Your task to perform on an android device: toggle priority inbox in the gmail app Image 0: 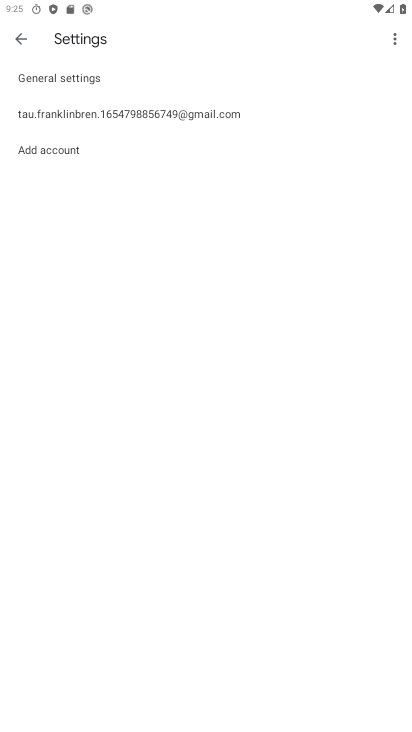
Step 0: press home button
Your task to perform on an android device: toggle priority inbox in the gmail app Image 1: 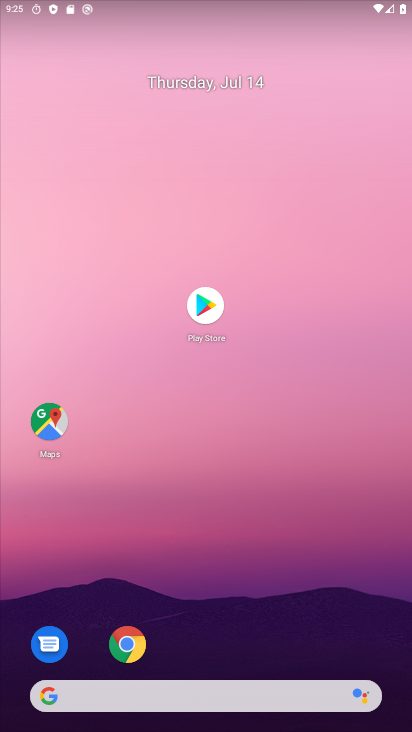
Step 1: drag from (185, 613) to (285, 130)
Your task to perform on an android device: toggle priority inbox in the gmail app Image 2: 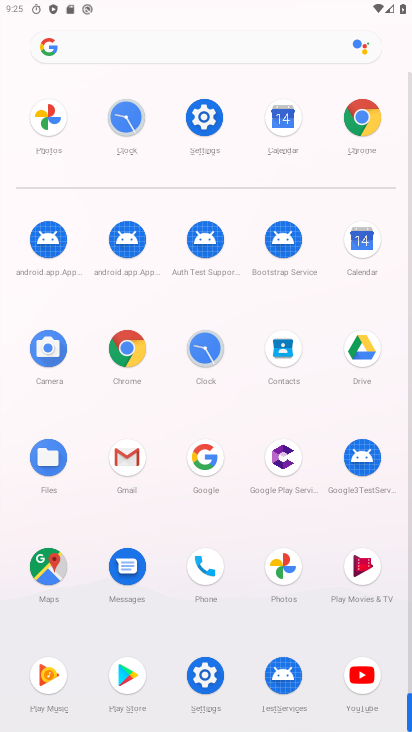
Step 2: click (114, 464)
Your task to perform on an android device: toggle priority inbox in the gmail app Image 3: 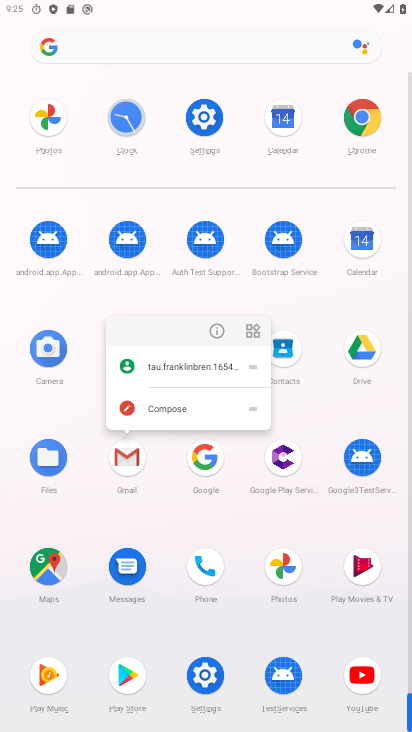
Step 3: click (215, 330)
Your task to perform on an android device: toggle priority inbox in the gmail app Image 4: 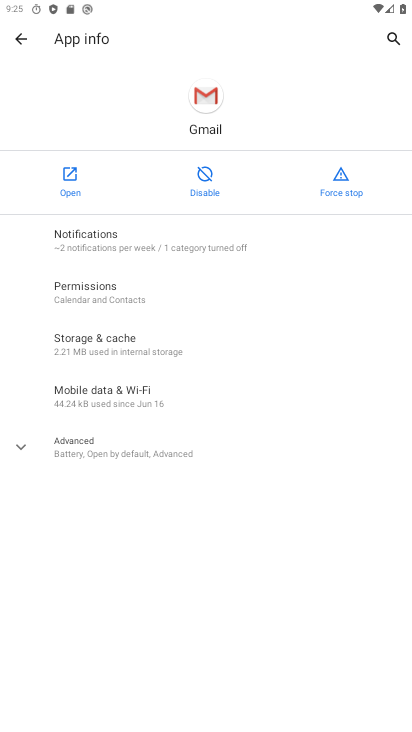
Step 4: click (70, 183)
Your task to perform on an android device: toggle priority inbox in the gmail app Image 5: 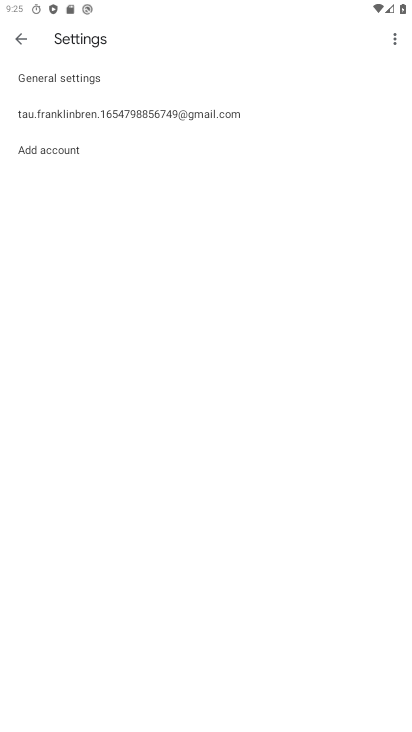
Step 5: click (153, 121)
Your task to perform on an android device: toggle priority inbox in the gmail app Image 6: 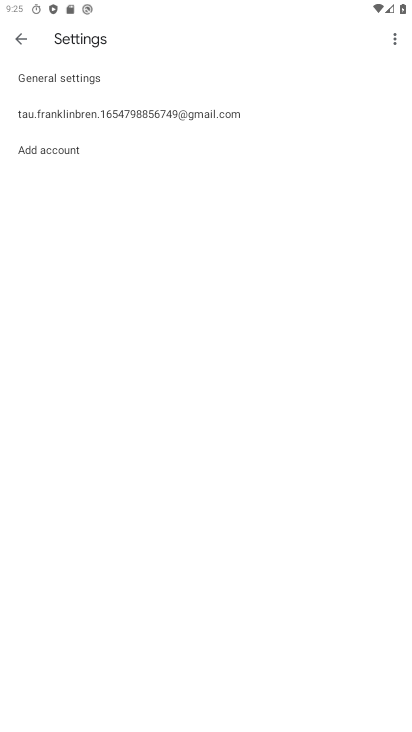
Step 6: click (153, 121)
Your task to perform on an android device: toggle priority inbox in the gmail app Image 7: 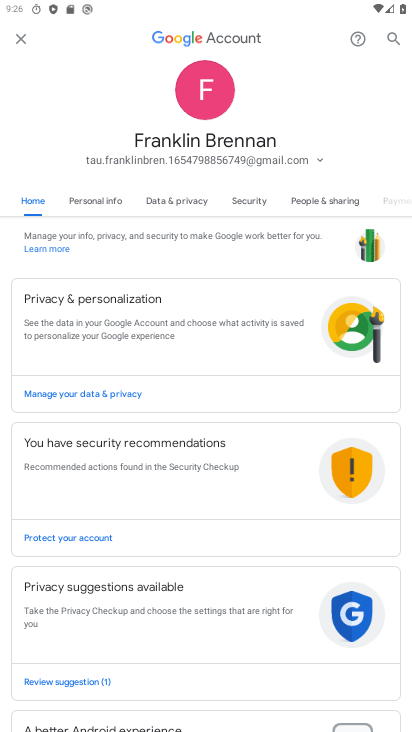
Step 7: drag from (195, 268) to (199, 704)
Your task to perform on an android device: toggle priority inbox in the gmail app Image 8: 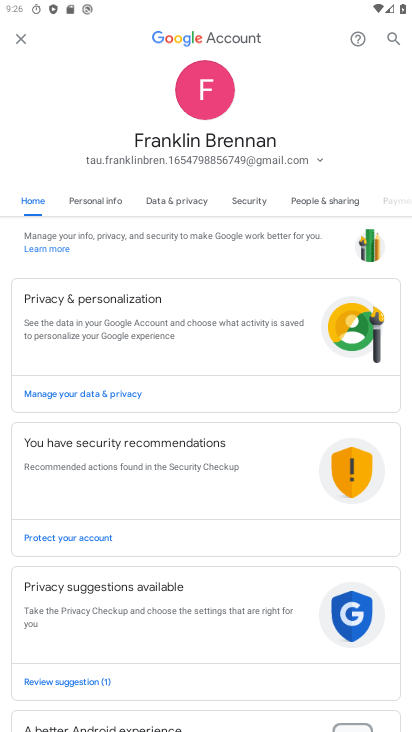
Step 8: click (18, 36)
Your task to perform on an android device: toggle priority inbox in the gmail app Image 9: 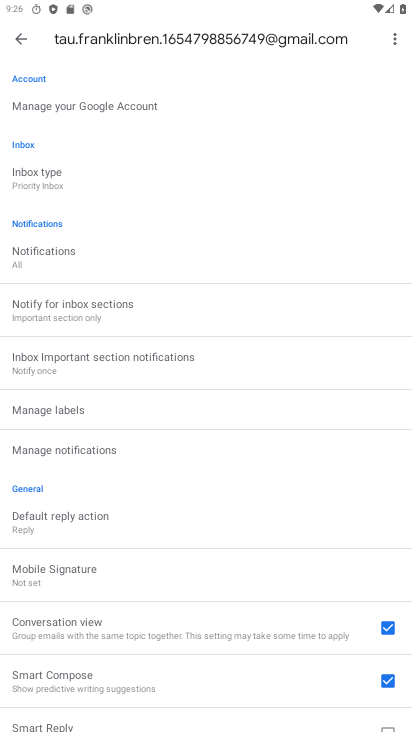
Step 9: click (86, 188)
Your task to perform on an android device: toggle priority inbox in the gmail app Image 10: 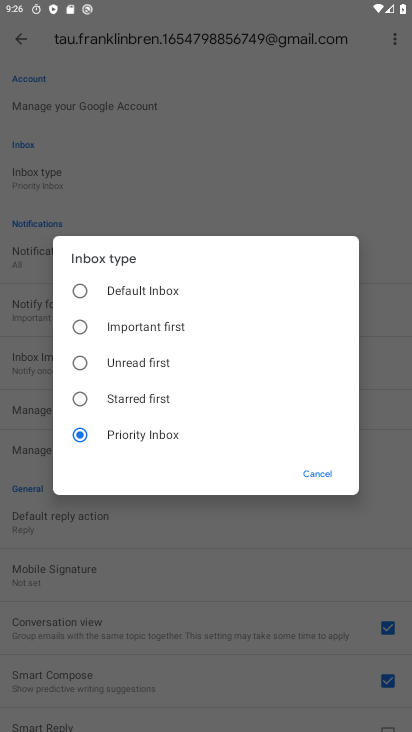
Step 10: click (118, 281)
Your task to perform on an android device: toggle priority inbox in the gmail app Image 11: 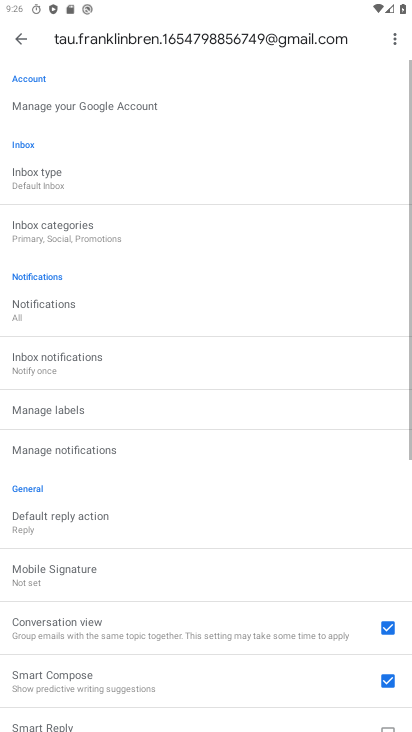
Step 11: task complete